Your task to perform on an android device: Go to CNN.com Image 0: 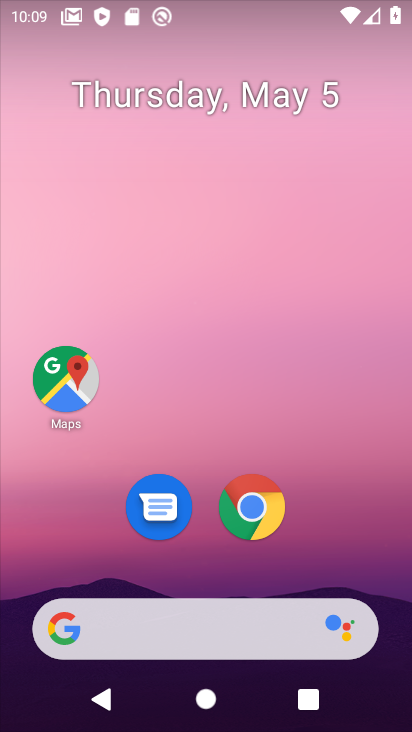
Step 0: click (251, 515)
Your task to perform on an android device: Go to CNN.com Image 1: 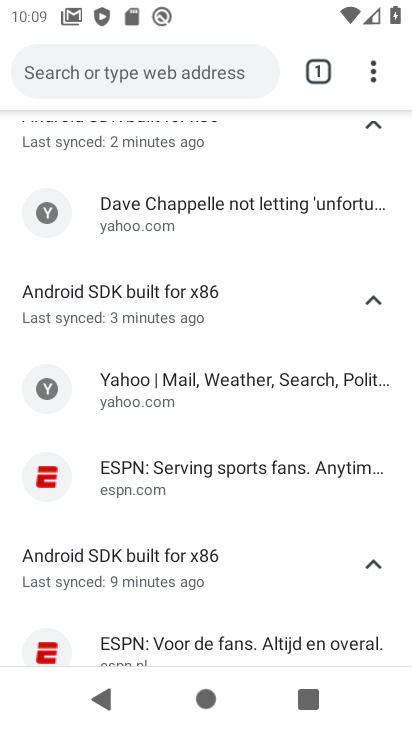
Step 1: click (75, 69)
Your task to perform on an android device: Go to CNN.com Image 2: 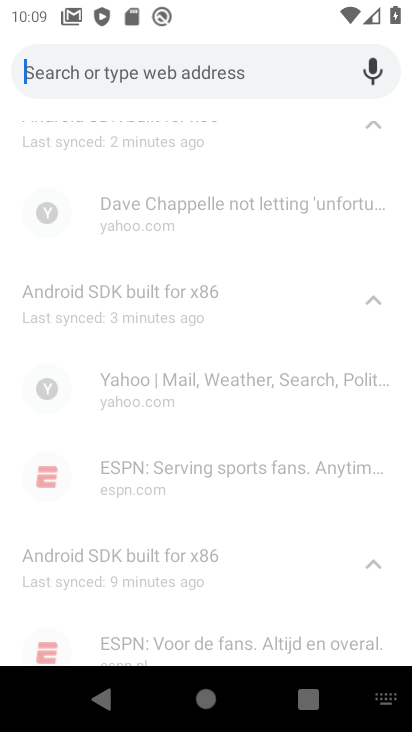
Step 2: type "cnn.com"
Your task to perform on an android device: Go to CNN.com Image 3: 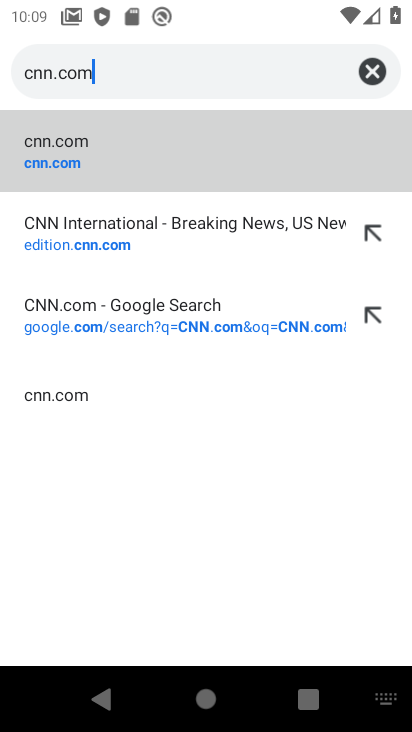
Step 3: click (28, 165)
Your task to perform on an android device: Go to CNN.com Image 4: 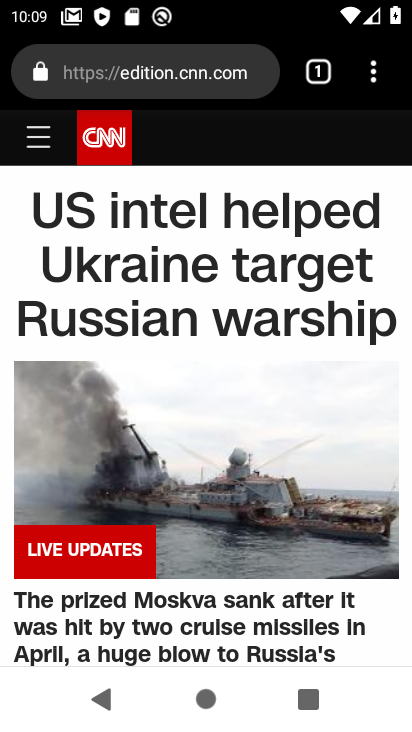
Step 4: task complete